Your task to perform on an android device: toggle airplane mode Image 0: 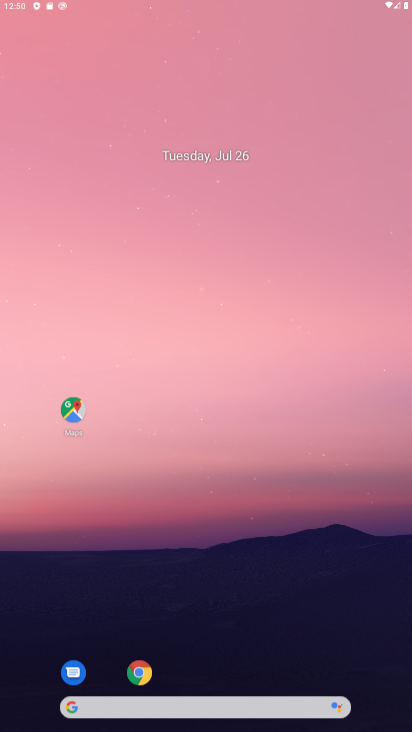
Step 0: click (142, 673)
Your task to perform on an android device: toggle airplane mode Image 1: 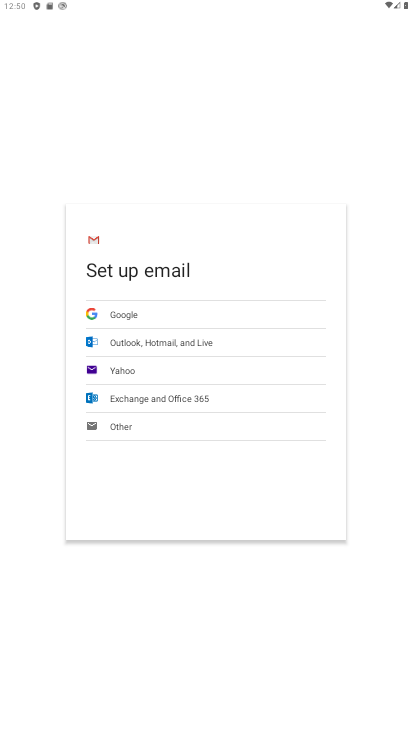
Step 1: press home button
Your task to perform on an android device: toggle airplane mode Image 2: 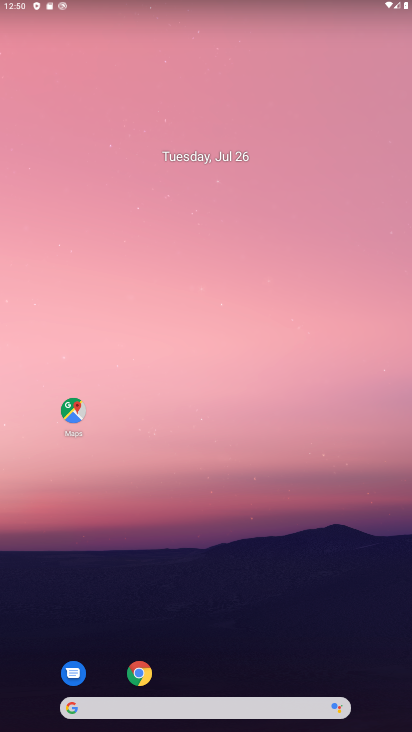
Step 2: drag from (217, 628) to (254, 5)
Your task to perform on an android device: toggle airplane mode Image 3: 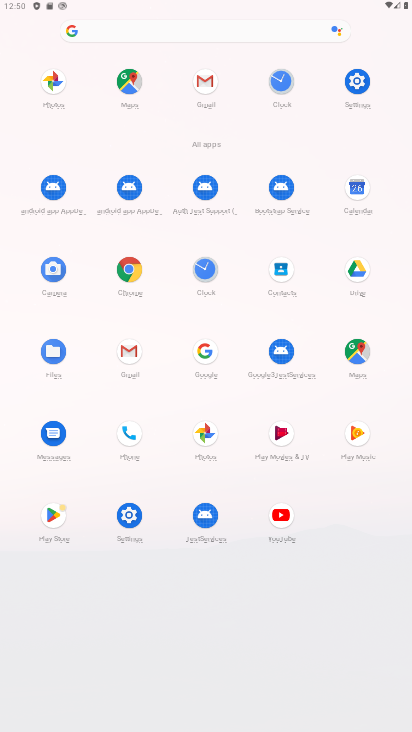
Step 3: click (126, 517)
Your task to perform on an android device: toggle airplane mode Image 4: 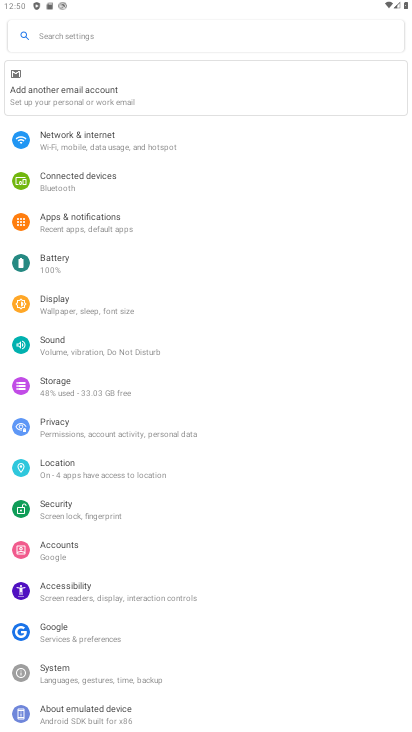
Step 4: click (77, 139)
Your task to perform on an android device: toggle airplane mode Image 5: 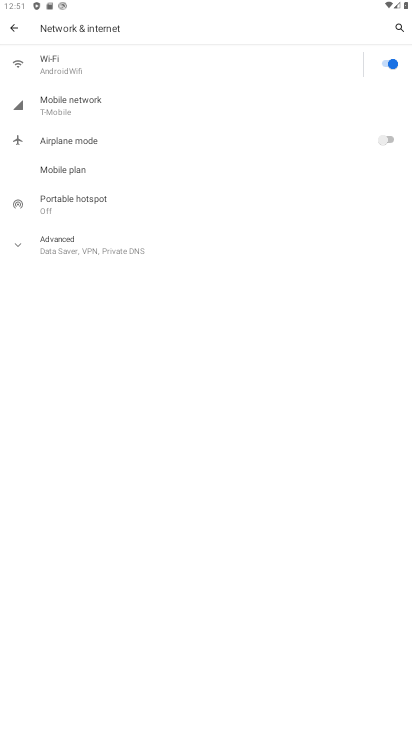
Step 5: click (387, 138)
Your task to perform on an android device: toggle airplane mode Image 6: 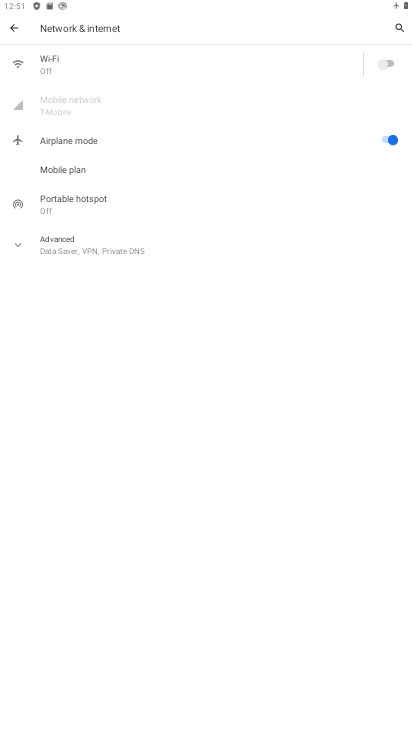
Step 6: task complete